Your task to perform on an android device: change keyboard looks Image 0: 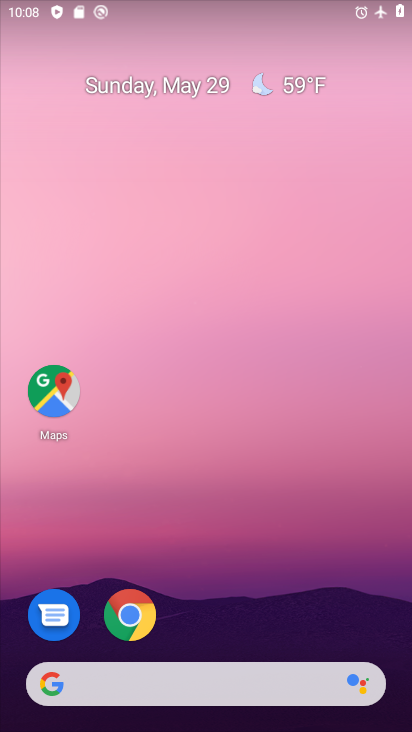
Step 0: drag from (238, 604) to (260, 42)
Your task to perform on an android device: change keyboard looks Image 1: 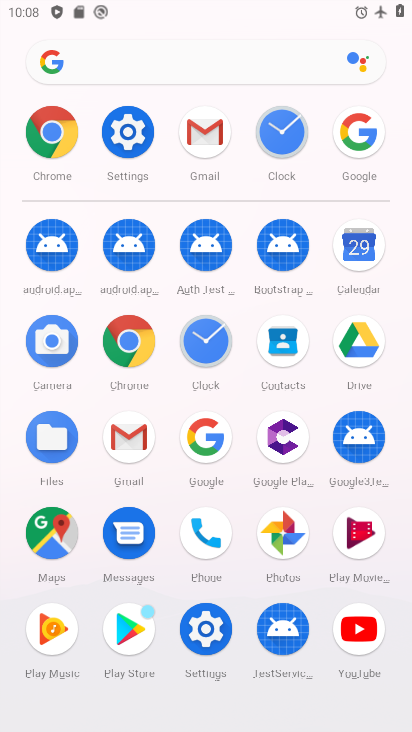
Step 1: click (127, 135)
Your task to perform on an android device: change keyboard looks Image 2: 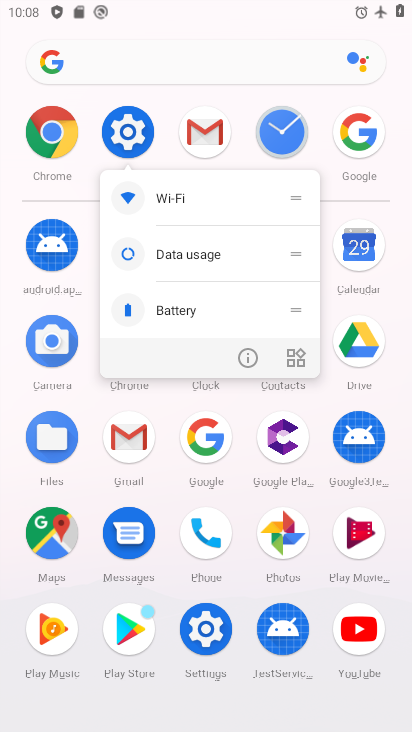
Step 2: click (129, 135)
Your task to perform on an android device: change keyboard looks Image 3: 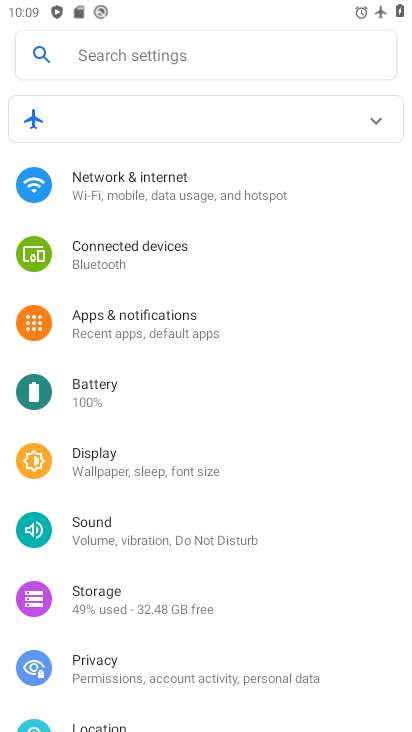
Step 3: drag from (216, 613) to (282, 38)
Your task to perform on an android device: change keyboard looks Image 4: 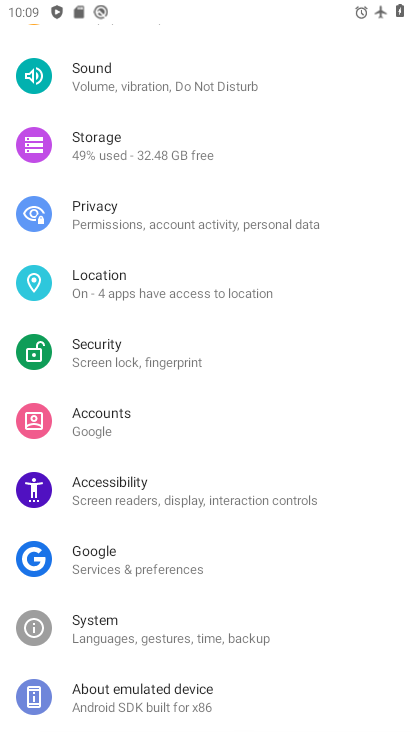
Step 4: click (102, 651)
Your task to perform on an android device: change keyboard looks Image 5: 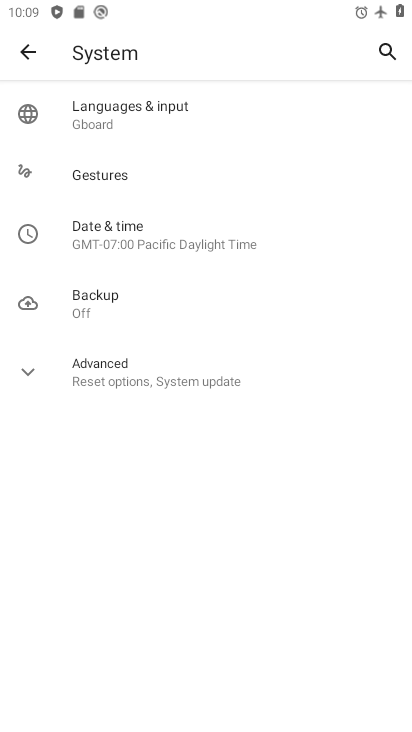
Step 5: click (104, 123)
Your task to perform on an android device: change keyboard looks Image 6: 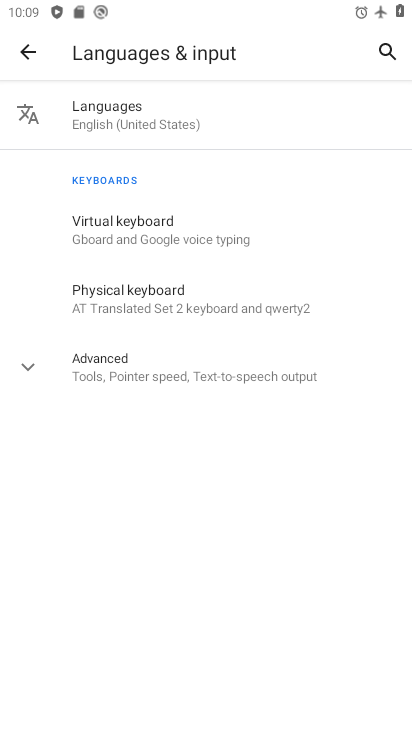
Step 6: click (115, 221)
Your task to perform on an android device: change keyboard looks Image 7: 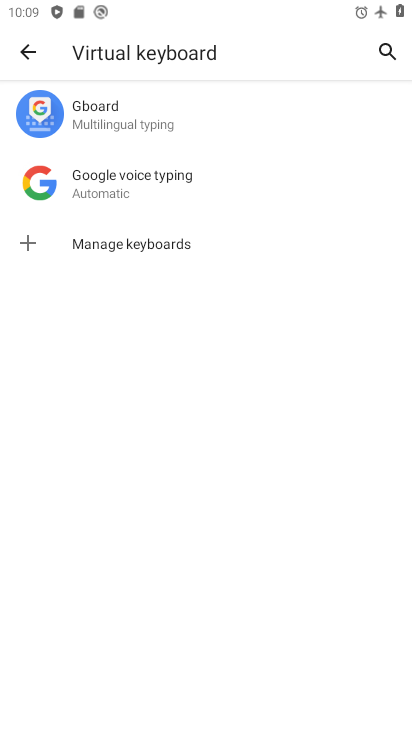
Step 7: click (113, 120)
Your task to perform on an android device: change keyboard looks Image 8: 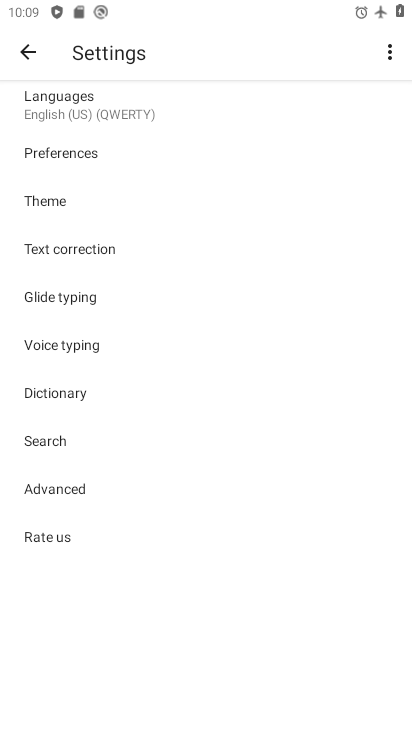
Step 8: click (84, 207)
Your task to perform on an android device: change keyboard looks Image 9: 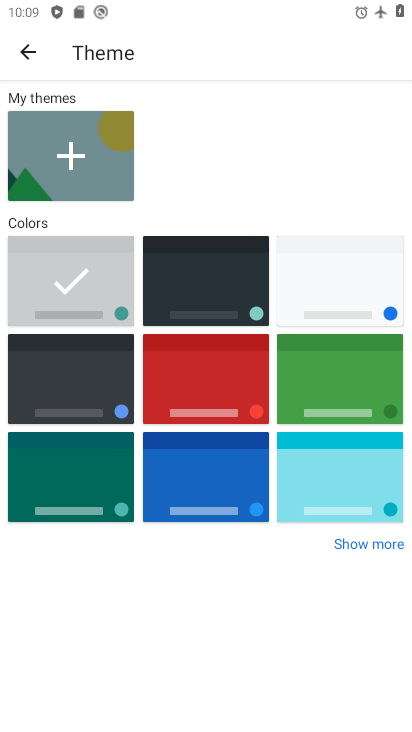
Step 9: click (213, 265)
Your task to perform on an android device: change keyboard looks Image 10: 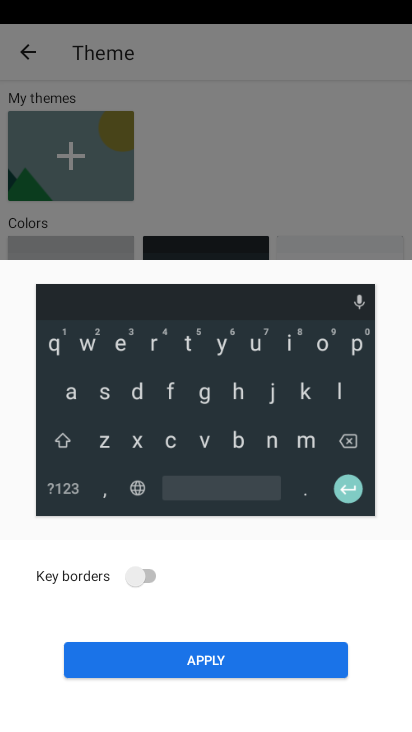
Step 10: click (214, 665)
Your task to perform on an android device: change keyboard looks Image 11: 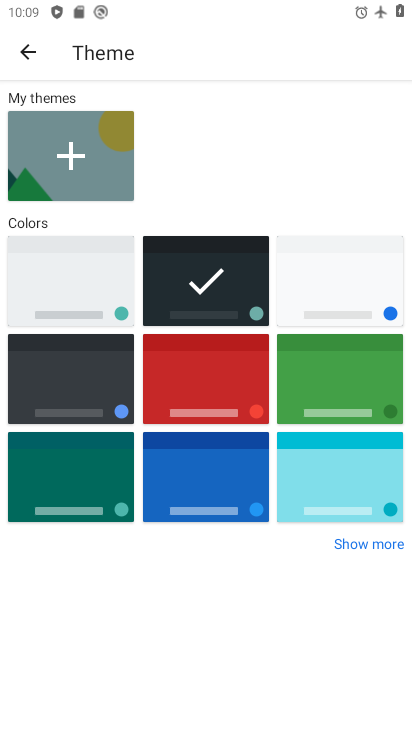
Step 11: task complete